Your task to perform on an android device: How big is a dinosaur? Image 0: 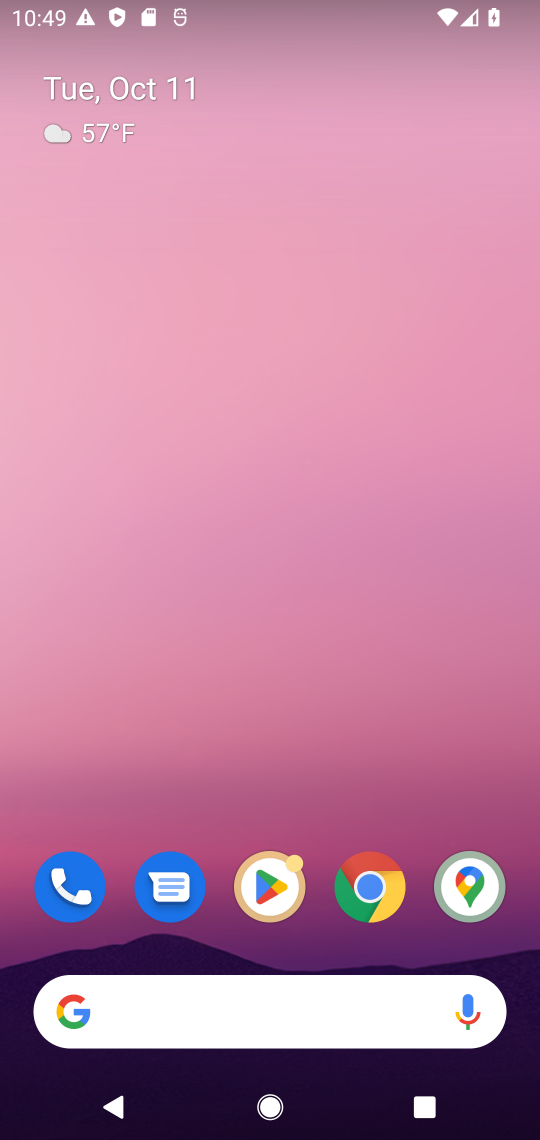
Step 0: press home button
Your task to perform on an android device: How big is a dinosaur? Image 1: 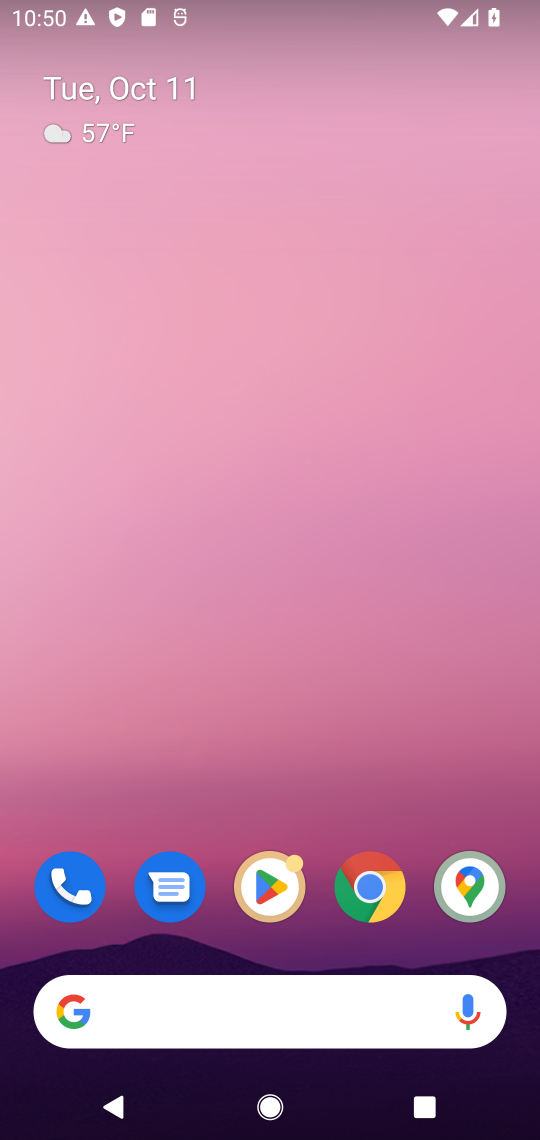
Step 1: click (260, 1011)
Your task to perform on an android device: How big is a dinosaur? Image 2: 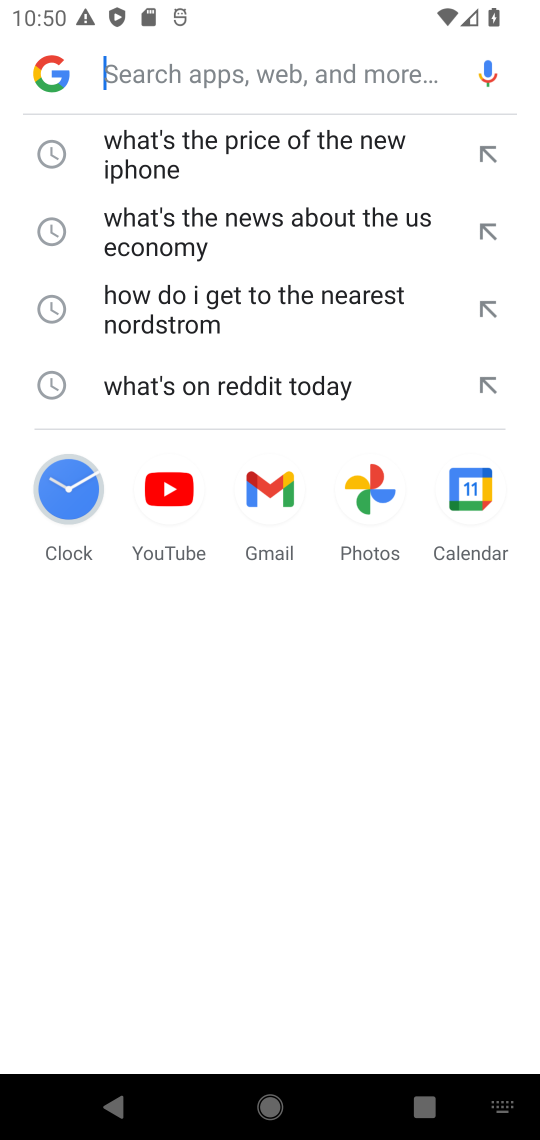
Step 2: type "How big is a dinosaur"
Your task to perform on an android device: How big is a dinosaur? Image 3: 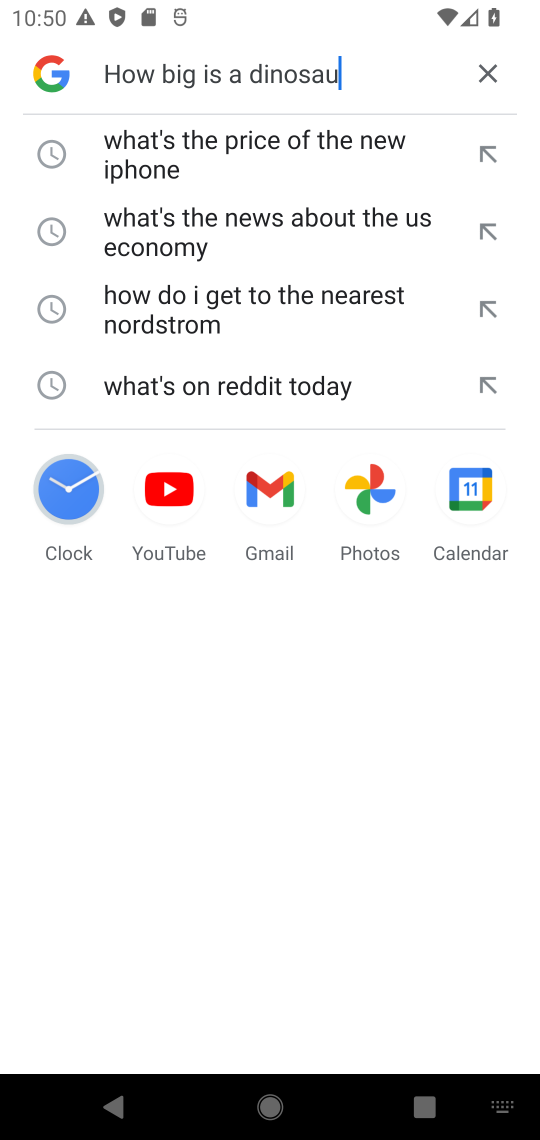
Step 3: press enter
Your task to perform on an android device: How big is a dinosaur? Image 4: 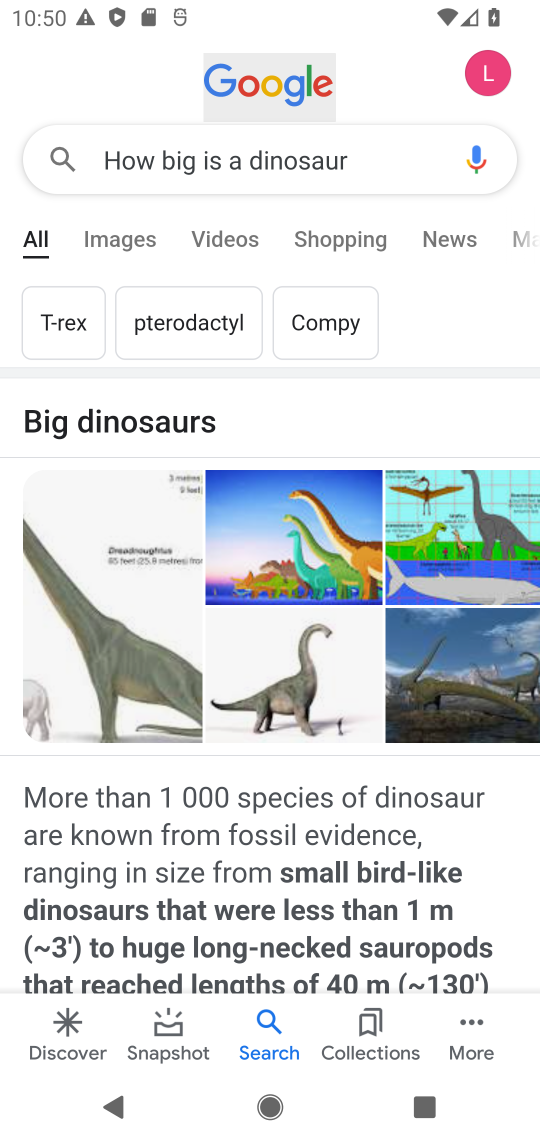
Step 4: task complete